Your task to perform on an android device: turn on showing notifications on the lock screen Image 0: 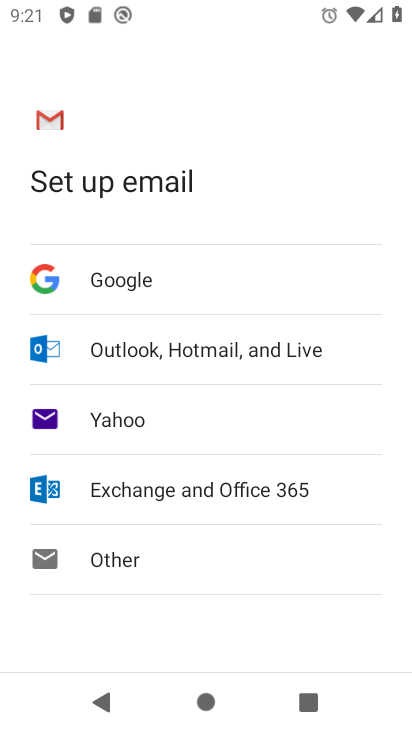
Step 0: press home button
Your task to perform on an android device: turn on showing notifications on the lock screen Image 1: 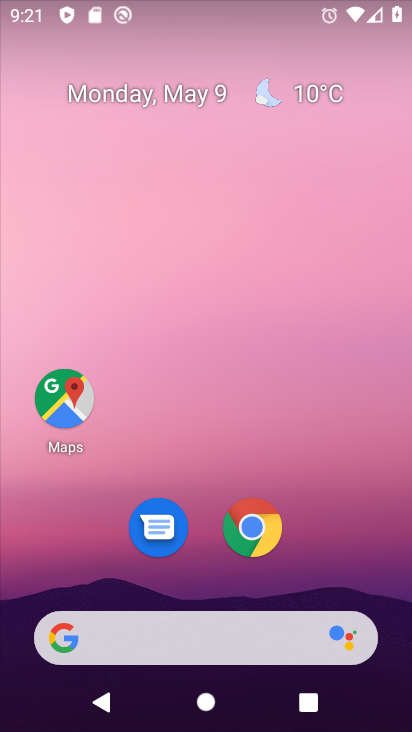
Step 1: drag from (390, 639) to (314, 89)
Your task to perform on an android device: turn on showing notifications on the lock screen Image 2: 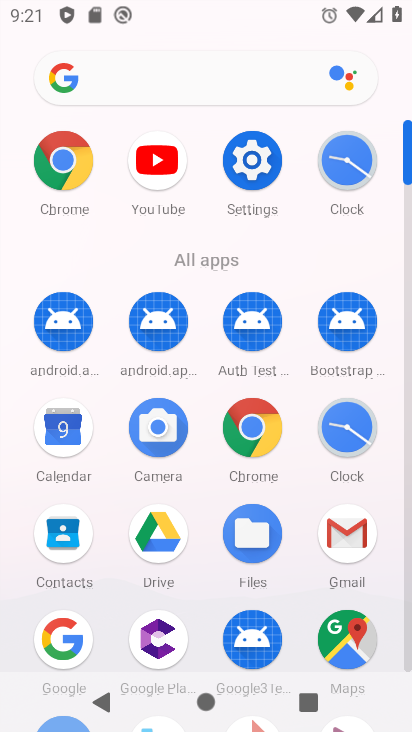
Step 2: click (405, 658)
Your task to perform on an android device: turn on showing notifications on the lock screen Image 3: 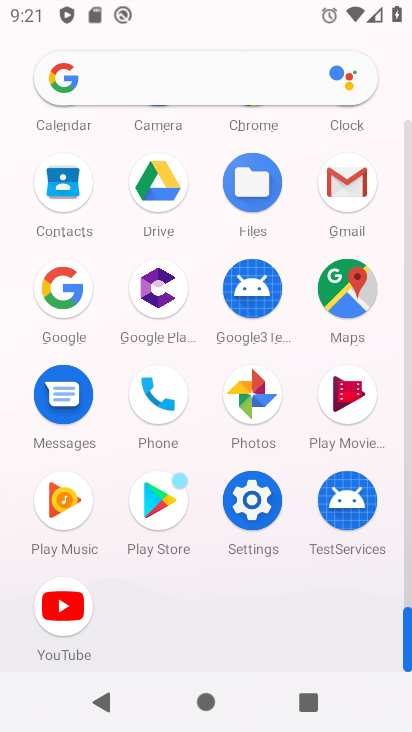
Step 3: click (250, 501)
Your task to perform on an android device: turn on showing notifications on the lock screen Image 4: 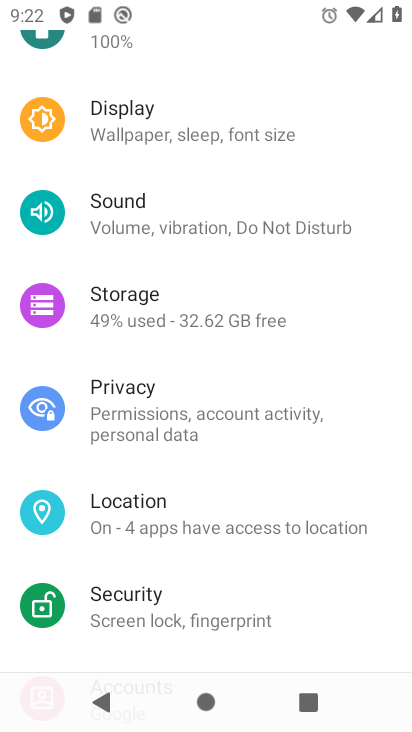
Step 4: drag from (347, 138) to (303, 488)
Your task to perform on an android device: turn on showing notifications on the lock screen Image 5: 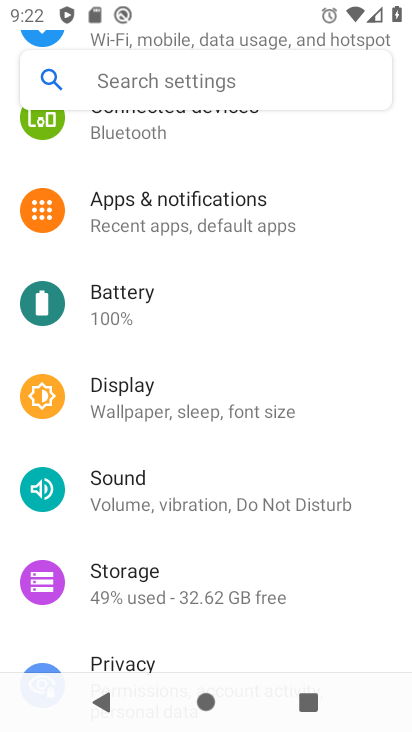
Step 5: click (122, 199)
Your task to perform on an android device: turn on showing notifications on the lock screen Image 6: 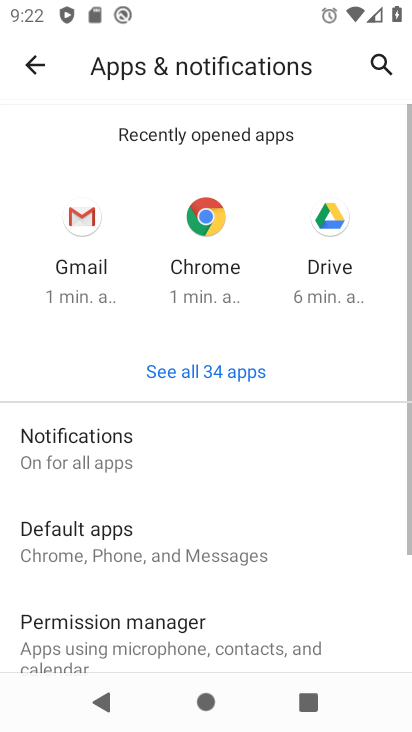
Step 6: click (57, 452)
Your task to perform on an android device: turn on showing notifications on the lock screen Image 7: 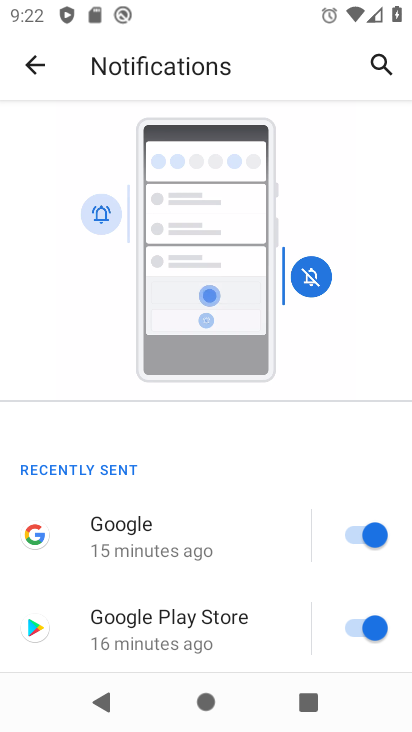
Step 7: drag from (321, 637) to (235, 110)
Your task to perform on an android device: turn on showing notifications on the lock screen Image 8: 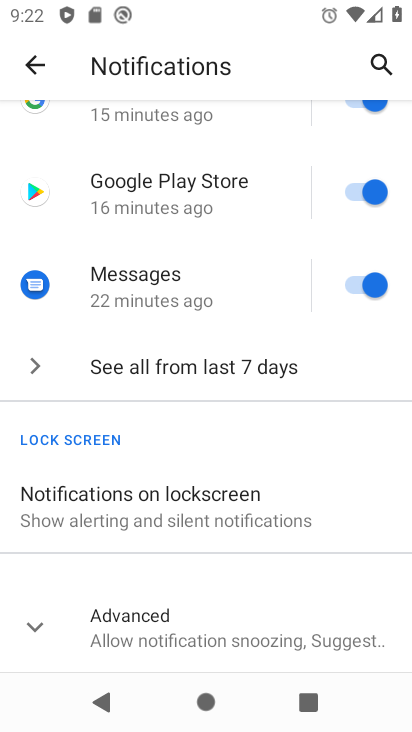
Step 8: click (102, 512)
Your task to perform on an android device: turn on showing notifications on the lock screen Image 9: 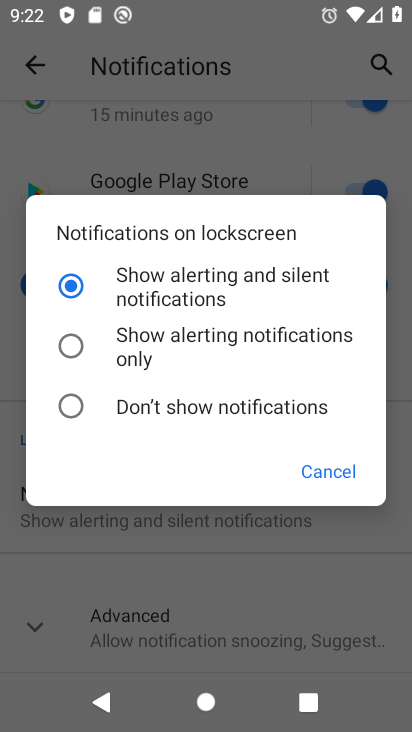
Step 9: task complete